Your task to perform on an android device: toggle translation in the chrome app Image 0: 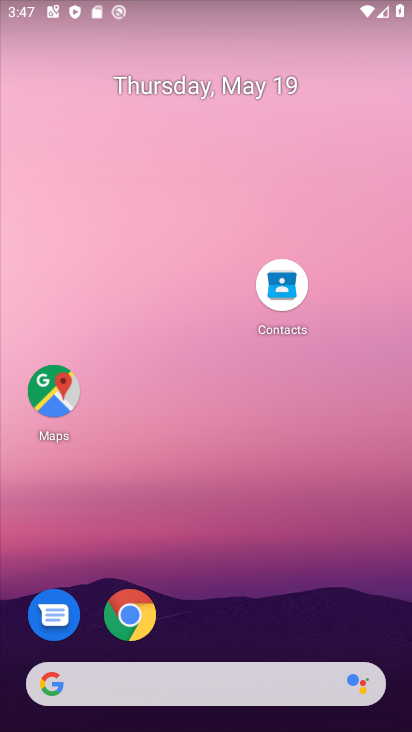
Step 0: drag from (201, 629) to (264, 175)
Your task to perform on an android device: toggle translation in the chrome app Image 1: 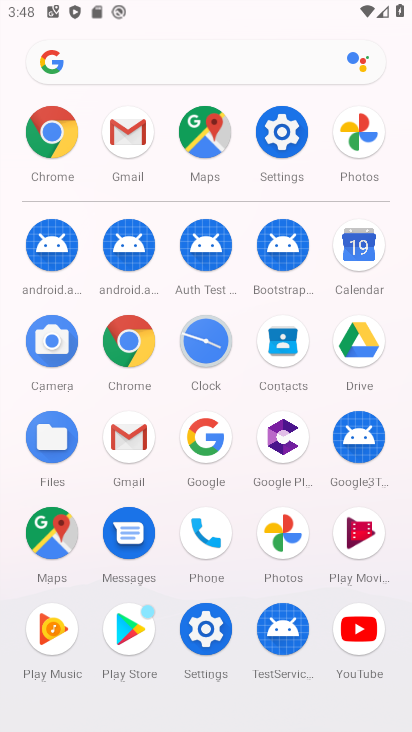
Step 1: click (40, 163)
Your task to perform on an android device: toggle translation in the chrome app Image 2: 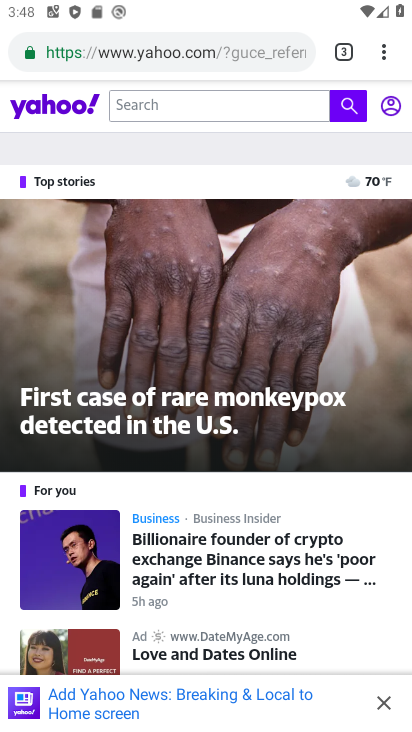
Step 2: click (384, 57)
Your task to perform on an android device: toggle translation in the chrome app Image 3: 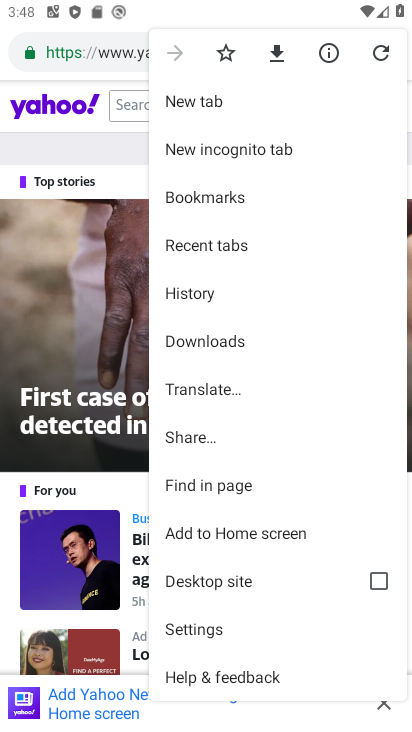
Step 3: click (188, 389)
Your task to perform on an android device: toggle translation in the chrome app Image 4: 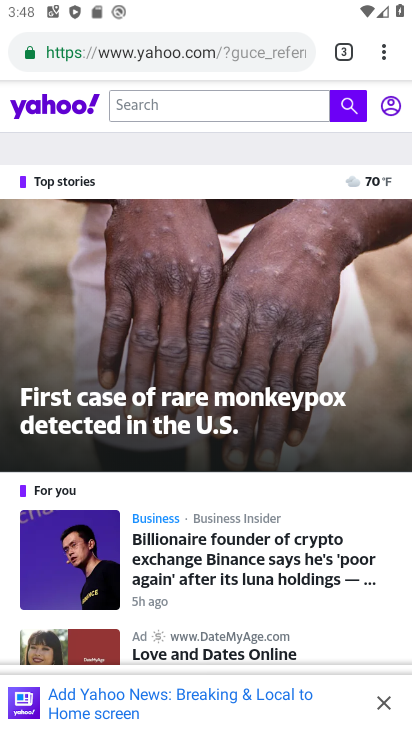
Step 4: click (381, 699)
Your task to perform on an android device: toggle translation in the chrome app Image 5: 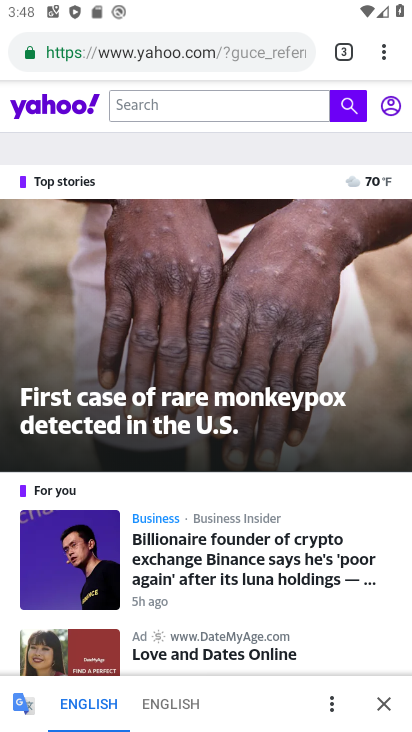
Step 5: click (338, 698)
Your task to perform on an android device: toggle translation in the chrome app Image 6: 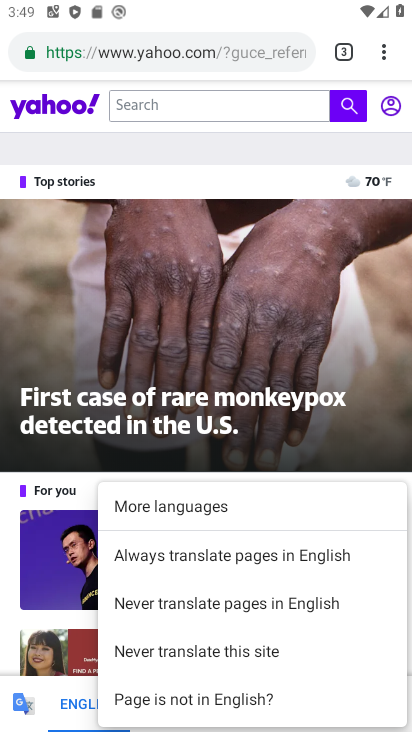
Step 6: click (173, 703)
Your task to perform on an android device: toggle translation in the chrome app Image 7: 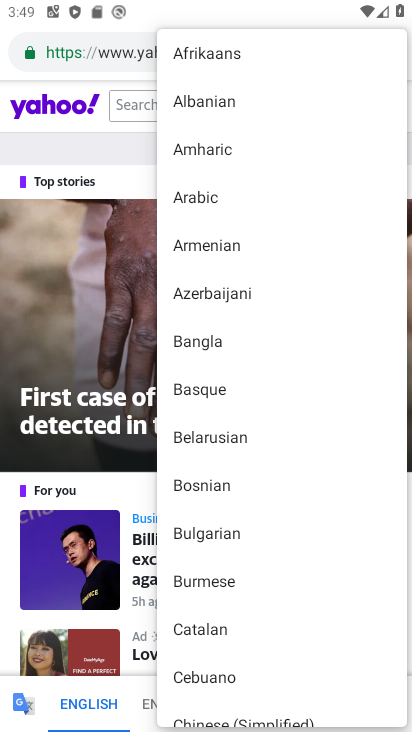
Step 7: task complete